Your task to perform on an android device: Open privacy settings Image 0: 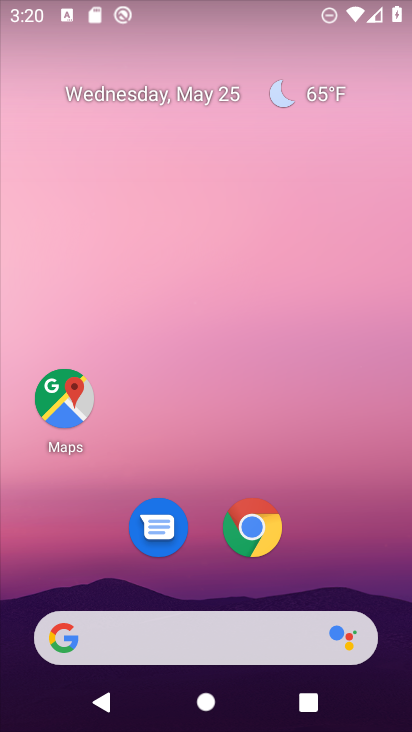
Step 0: drag from (275, 638) to (302, 22)
Your task to perform on an android device: Open privacy settings Image 1: 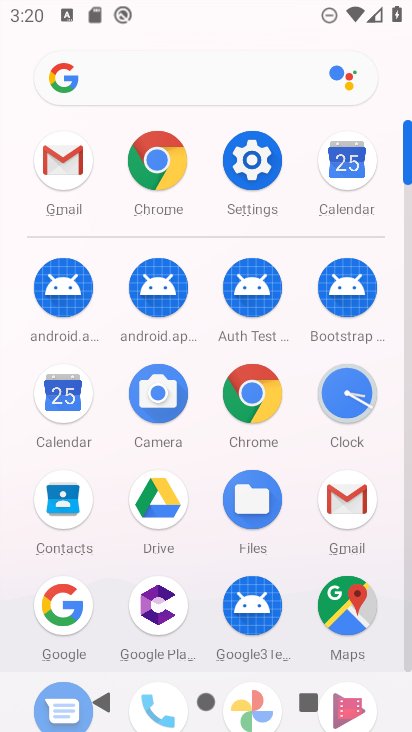
Step 1: click (270, 162)
Your task to perform on an android device: Open privacy settings Image 2: 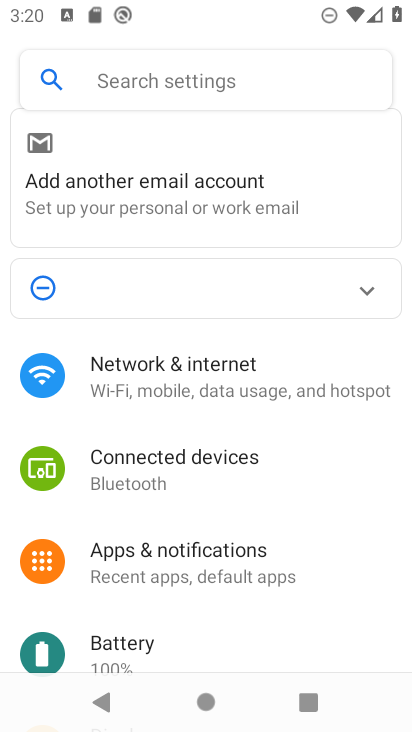
Step 2: drag from (226, 632) to (238, 212)
Your task to perform on an android device: Open privacy settings Image 3: 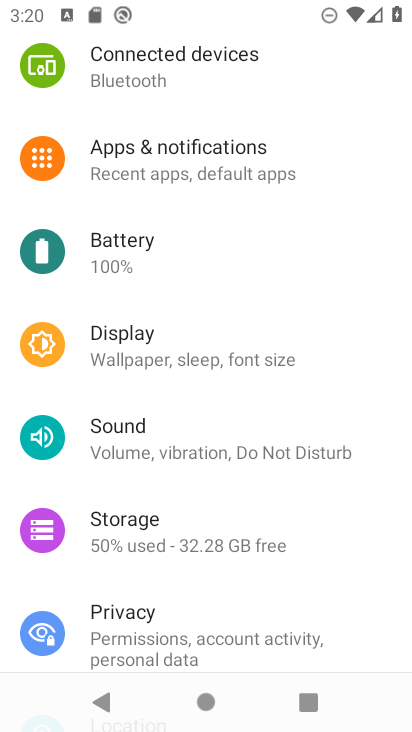
Step 3: click (219, 627)
Your task to perform on an android device: Open privacy settings Image 4: 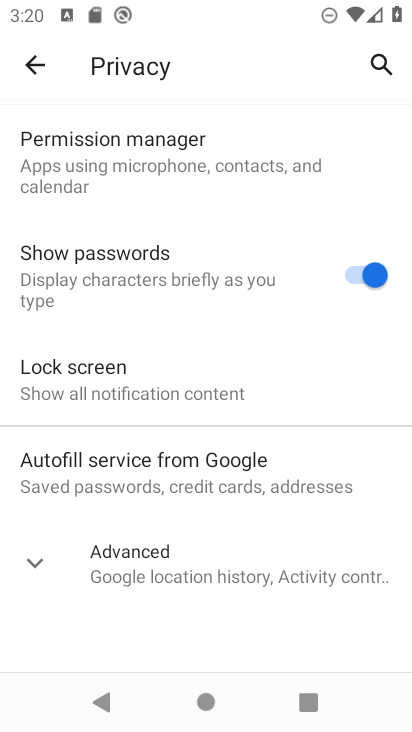
Step 4: task complete